Your task to perform on an android device: What's the news in Singapore? Image 0: 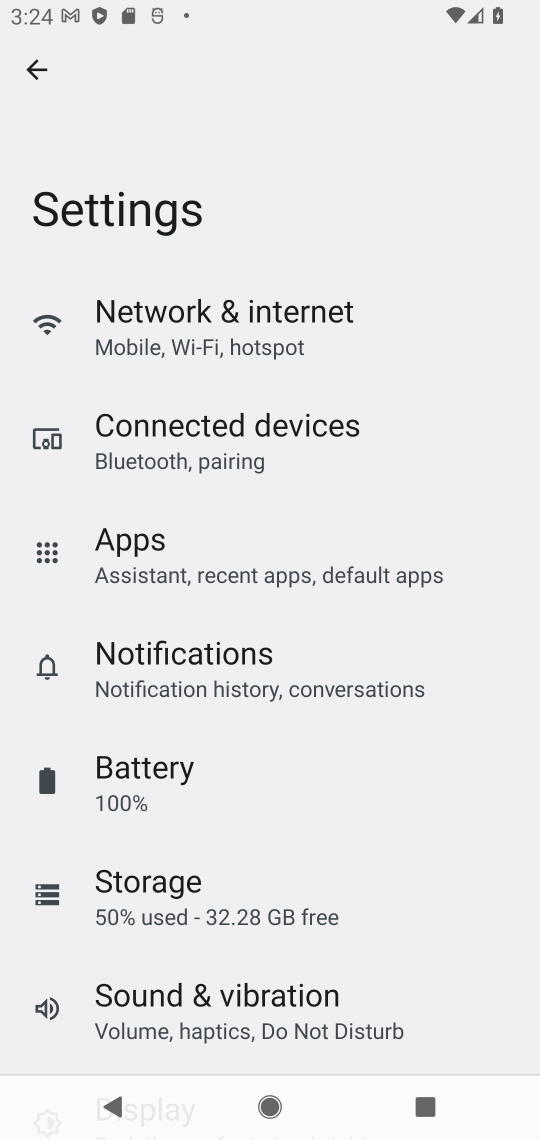
Step 0: press home button
Your task to perform on an android device: What's the news in Singapore? Image 1: 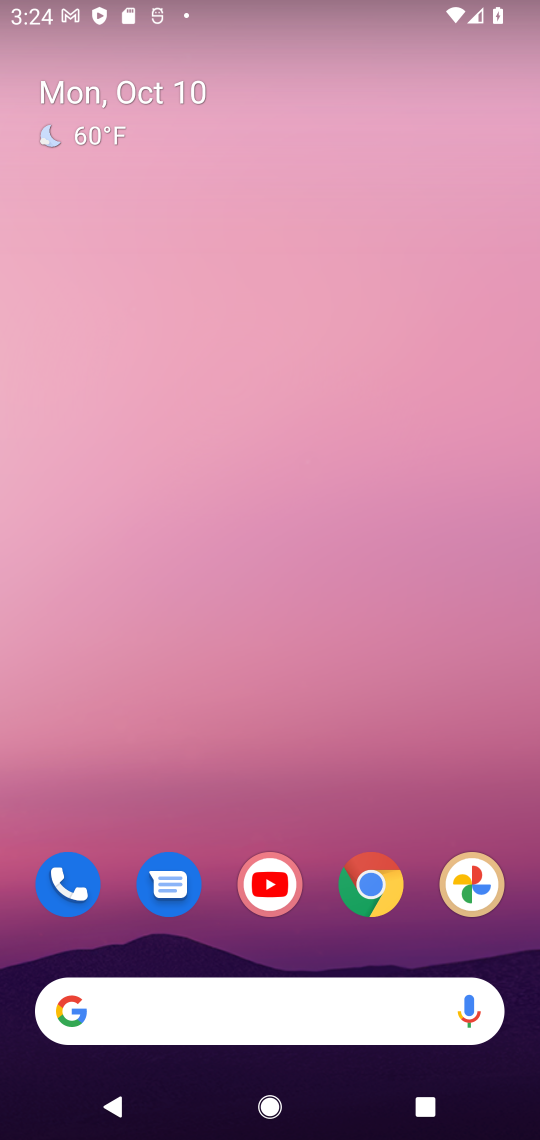
Step 1: click (197, 1017)
Your task to perform on an android device: What's the news in Singapore? Image 2: 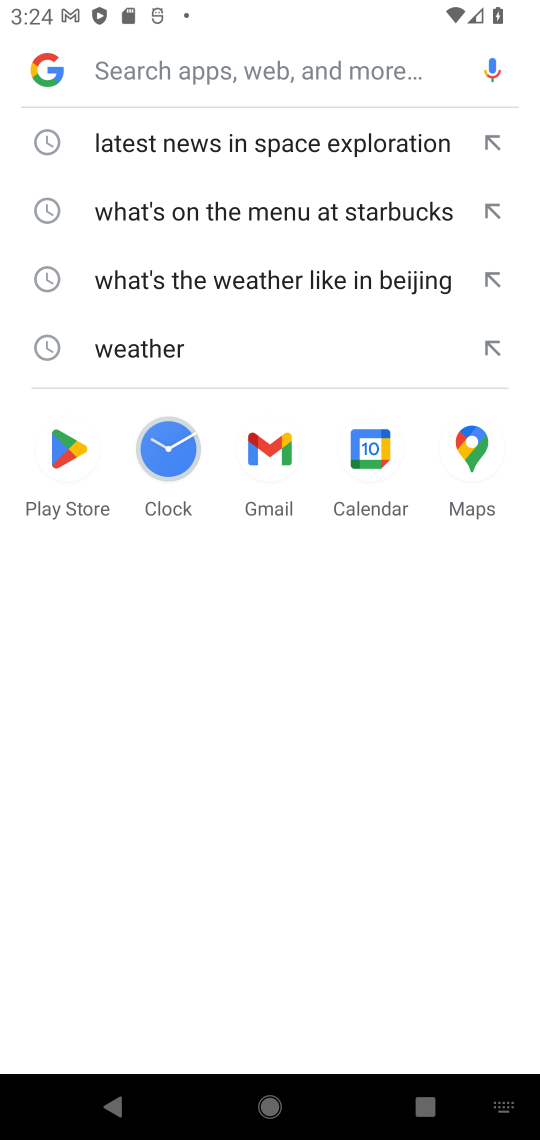
Step 2: type "news in singapore"
Your task to perform on an android device: What's the news in Singapore? Image 3: 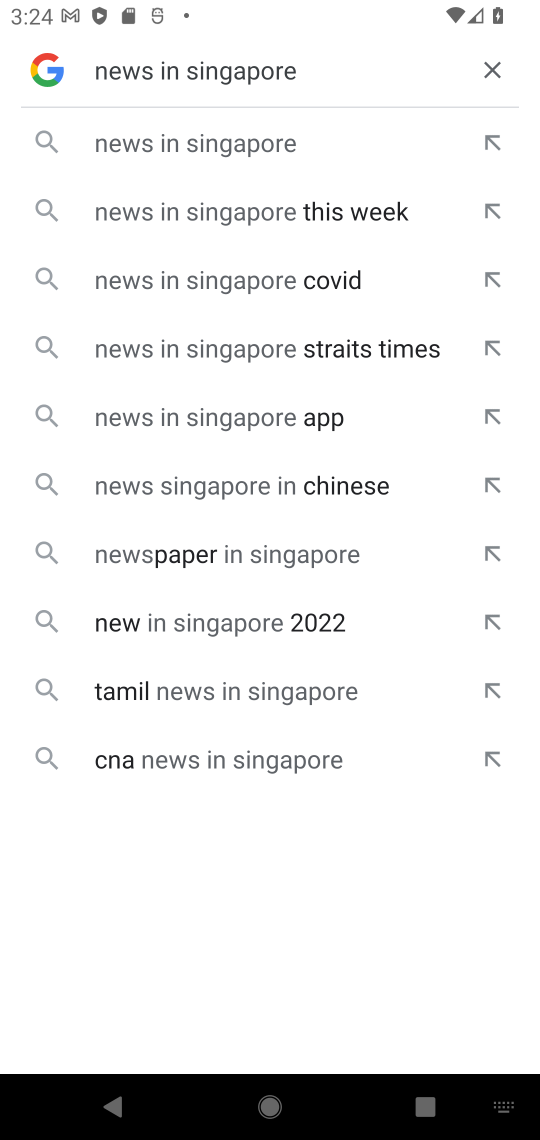
Step 3: click (224, 217)
Your task to perform on an android device: What's the news in Singapore? Image 4: 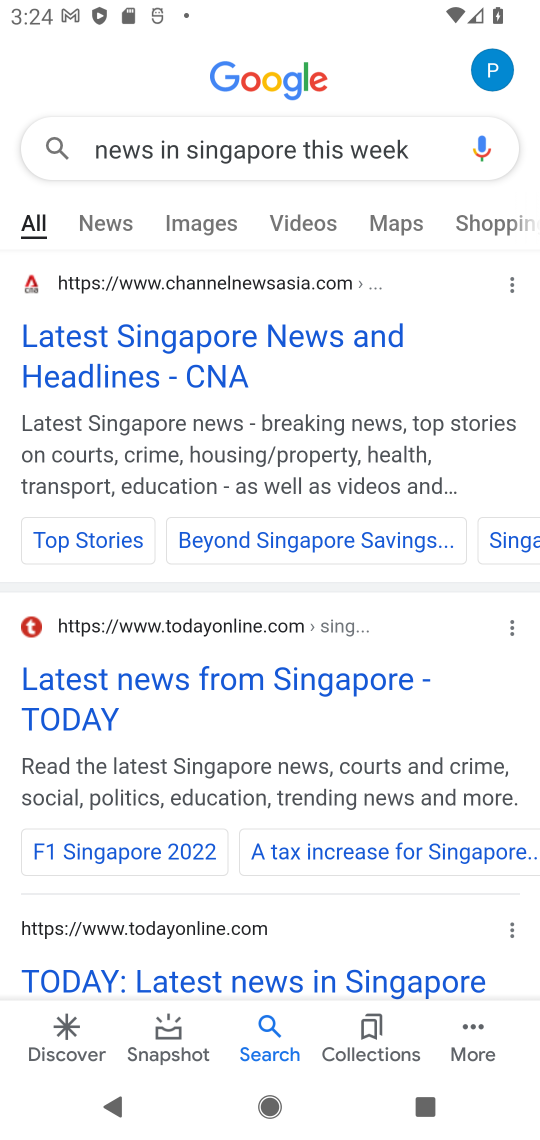
Step 4: click (103, 383)
Your task to perform on an android device: What's the news in Singapore? Image 5: 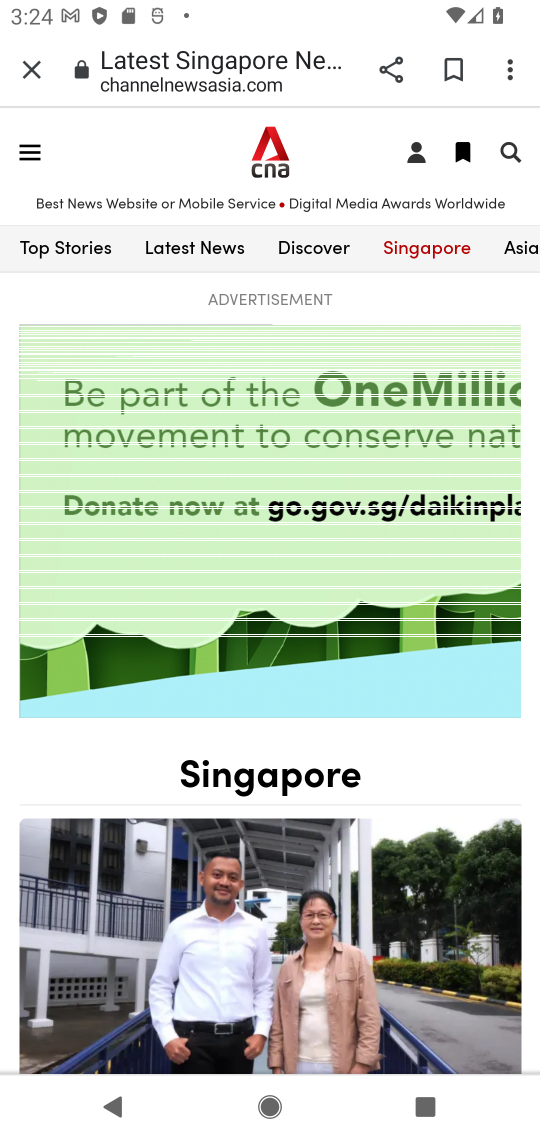
Step 5: task complete